Your task to perform on an android device: open app "Microsoft Authenticator" Image 0: 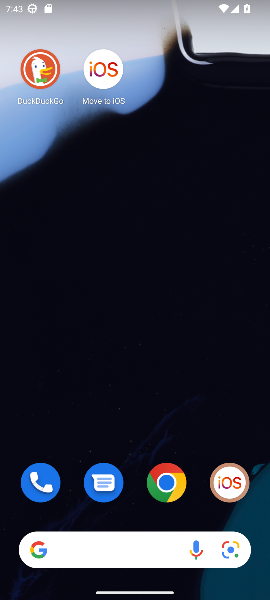
Step 0: drag from (148, 513) to (174, 46)
Your task to perform on an android device: open app "Microsoft Authenticator" Image 1: 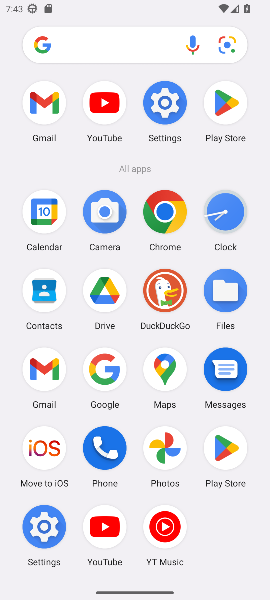
Step 1: click (228, 112)
Your task to perform on an android device: open app "Microsoft Authenticator" Image 2: 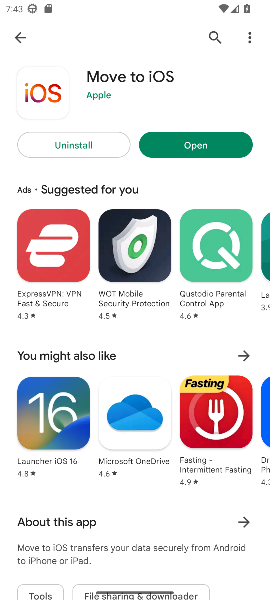
Step 2: click (22, 32)
Your task to perform on an android device: open app "Microsoft Authenticator" Image 3: 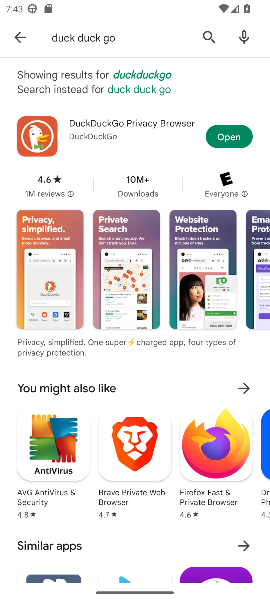
Step 3: click (133, 38)
Your task to perform on an android device: open app "Microsoft Authenticator" Image 4: 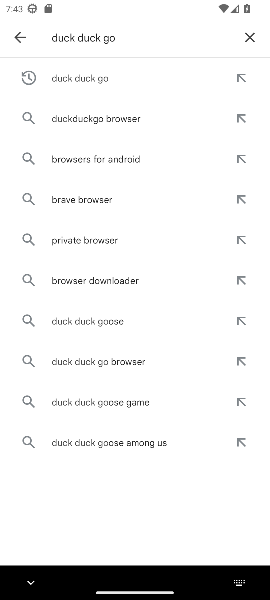
Step 4: click (249, 31)
Your task to perform on an android device: open app "Microsoft Authenticator" Image 5: 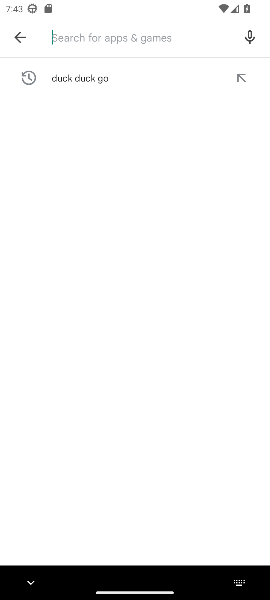
Step 5: type "microsoft authenticator"
Your task to perform on an android device: open app "Microsoft Authenticator" Image 6: 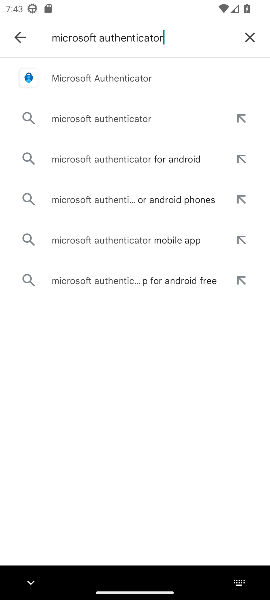
Step 6: click (91, 83)
Your task to perform on an android device: open app "Microsoft Authenticator" Image 7: 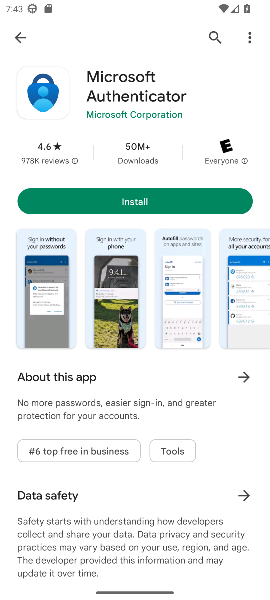
Step 7: task complete